Your task to perform on an android device: turn on javascript in the chrome app Image 0: 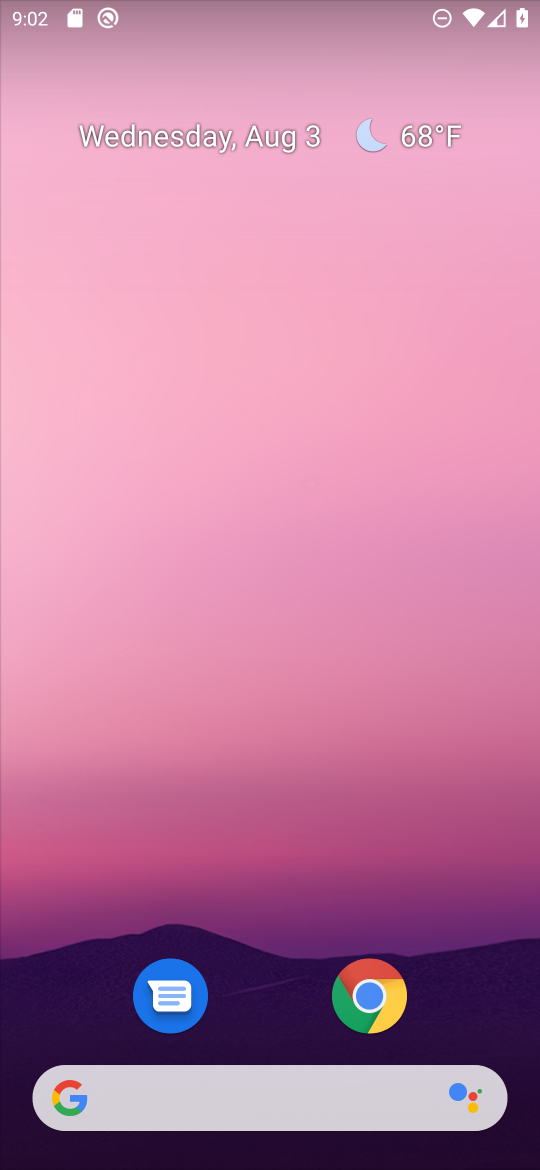
Step 0: click (381, 977)
Your task to perform on an android device: turn on javascript in the chrome app Image 1: 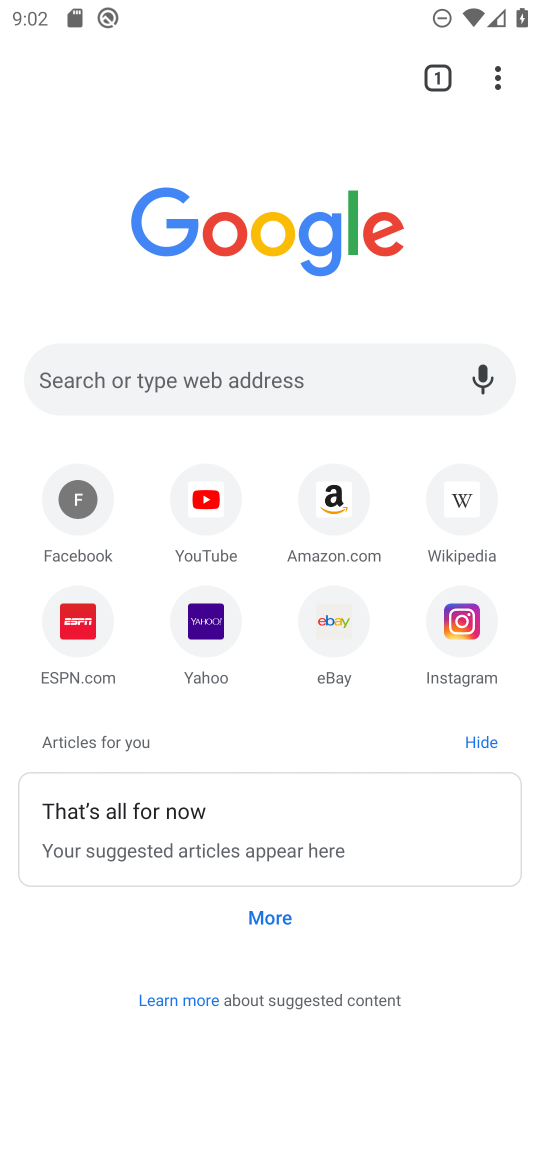
Step 1: click (502, 79)
Your task to perform on an android device: turn on javascript in the chrome app Image 2: 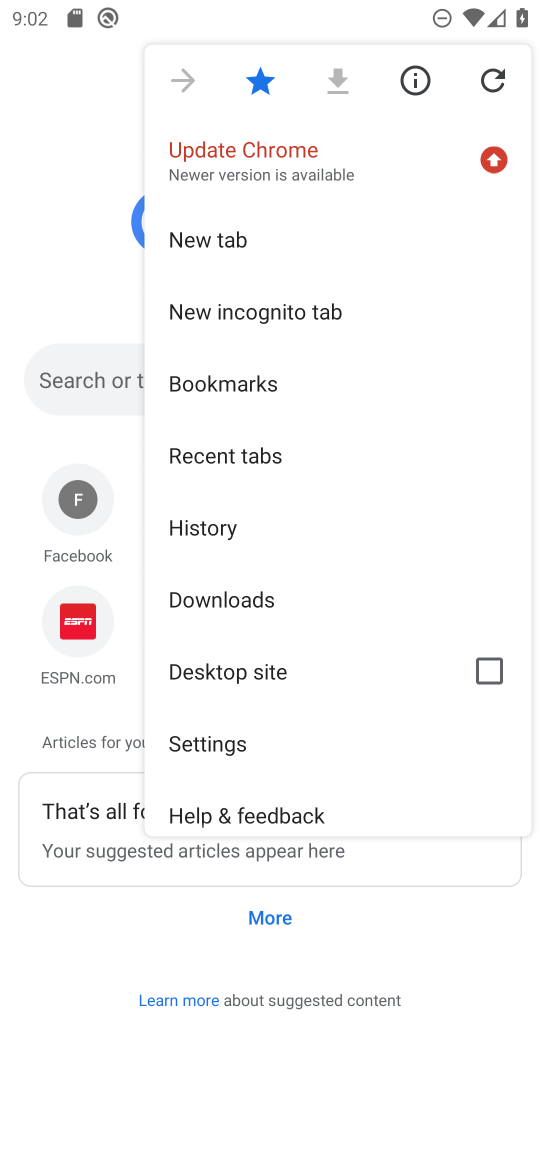
Step 2: click (259, 736)
Your task to perform on an android device: turn on javascript in the chrome app Image 3: 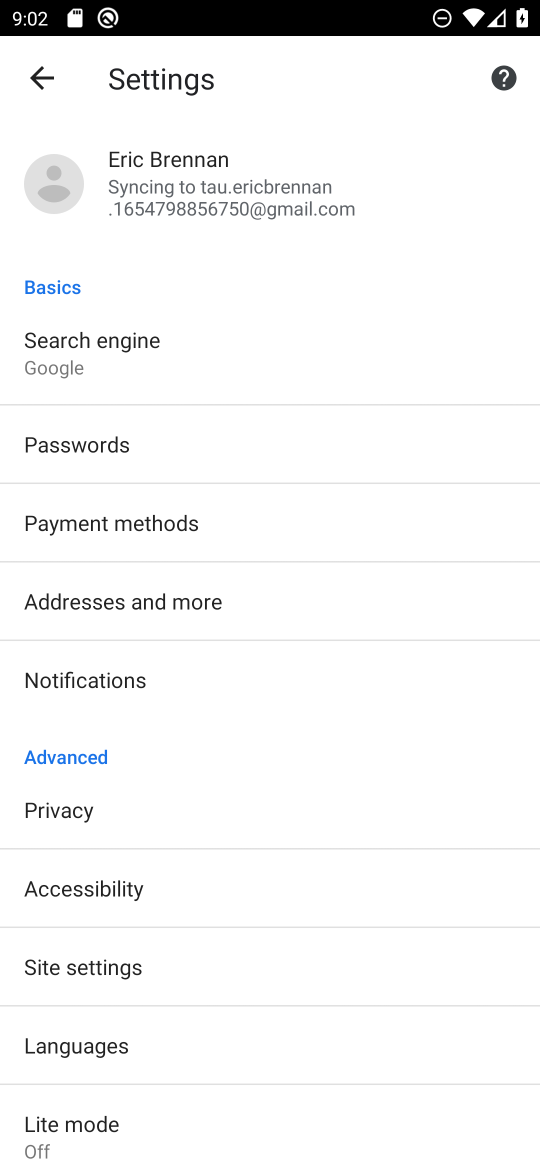
Step 3: click (233, 981)
Your task to perform on an android device: turn on javascript in the chrome app Image 4: 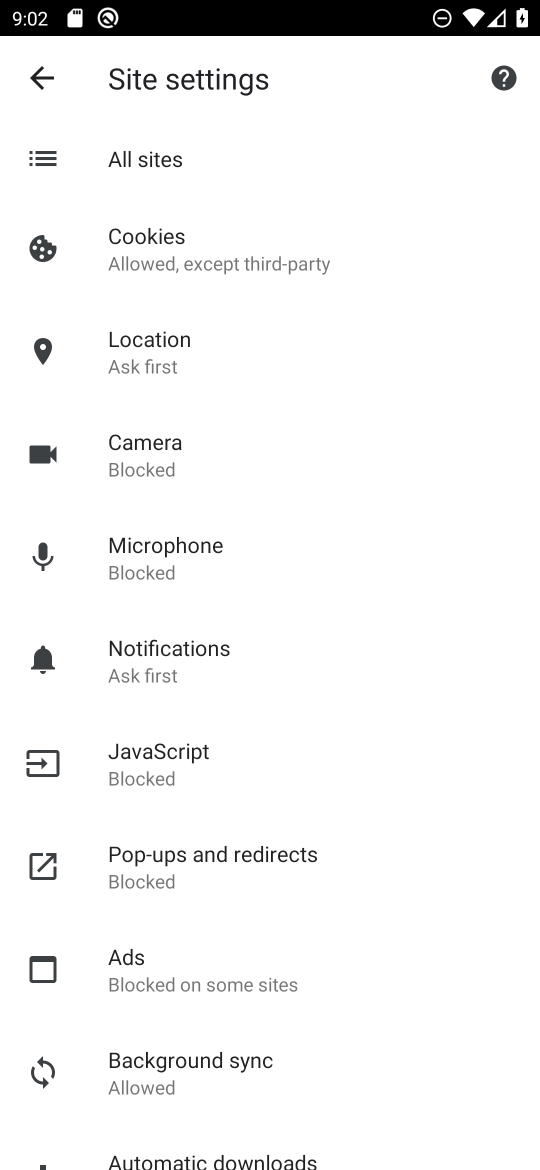
Step 4: click (269, 766)
Your task to perform on an android device: turn on javascript in the chrome app Image 5: 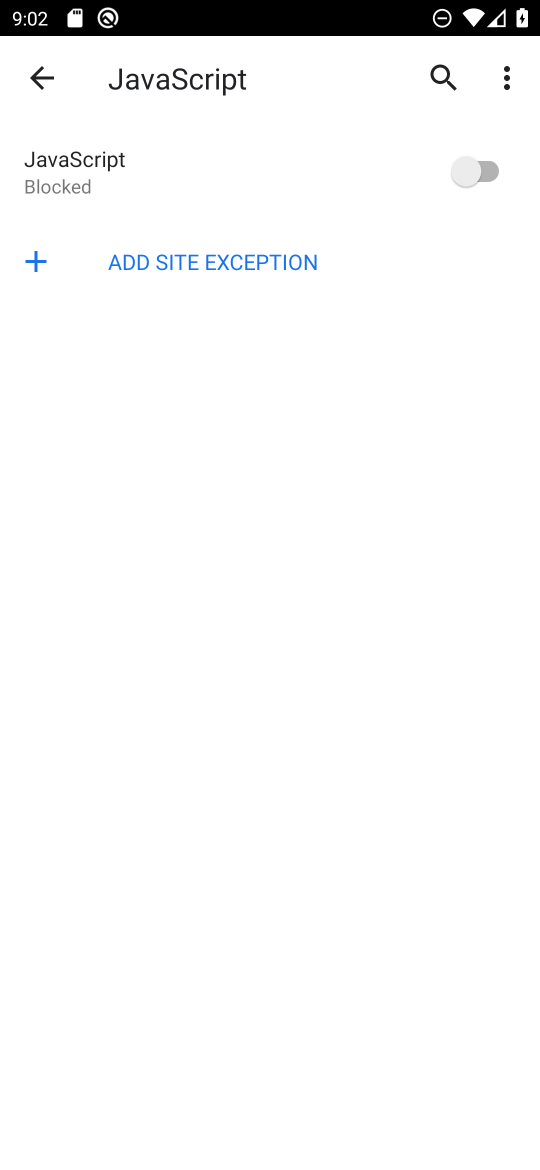
Step 5: click (472, 153)
Your task to perform on an android device: turn on javascript in the chrome app Image 6: 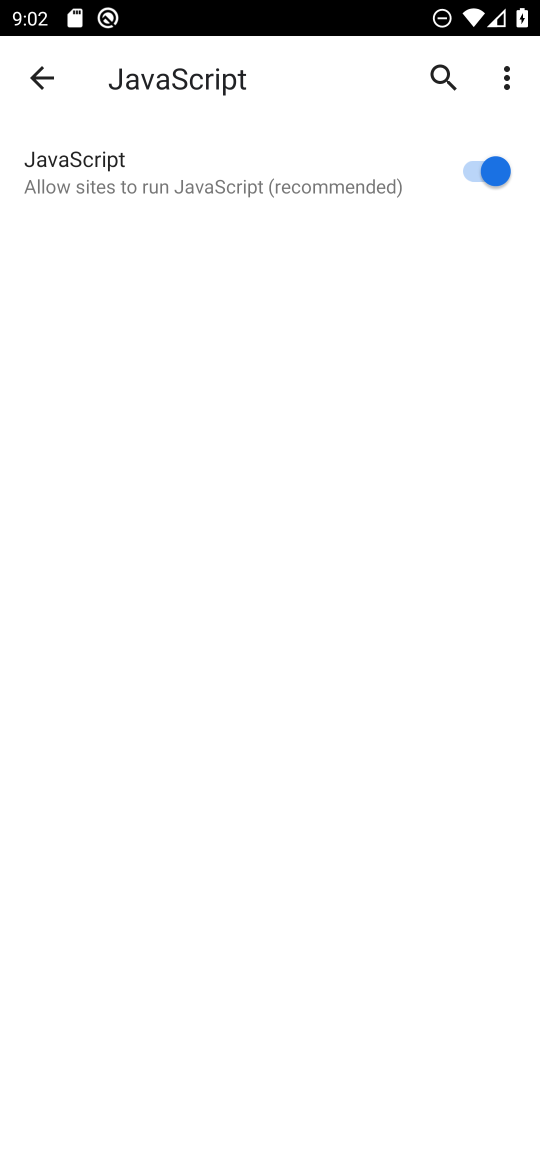
Step 6: task complete